Your task to perform on an android device: open a bookmark in the chrome app Image 0: 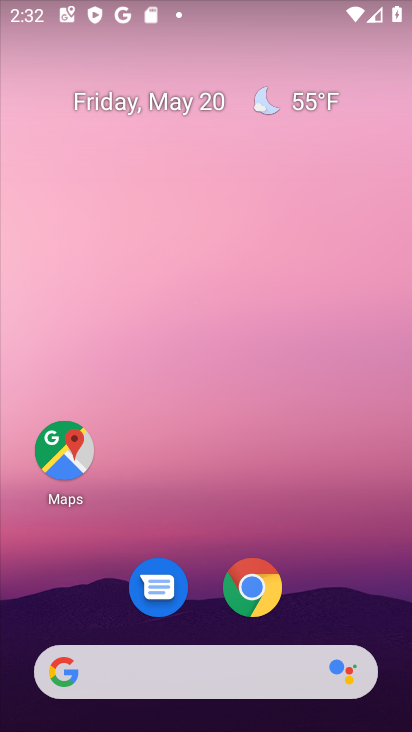
Step 0: press home button
Your task to perform on an android device: open a bookmark in the chrome app Image 1: 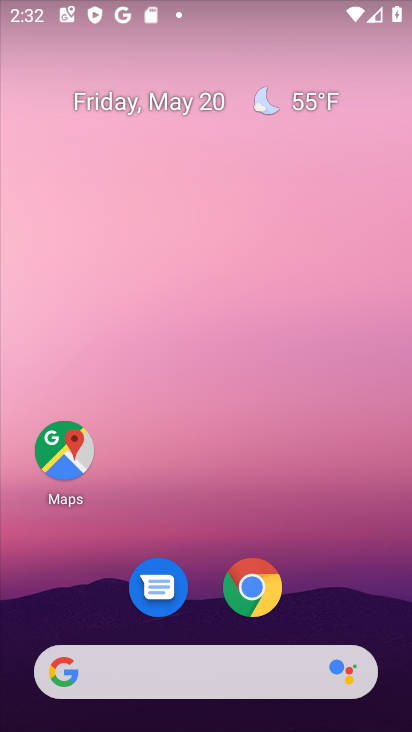
Step 1: click (246, 598)
Your task to perform on an android device: open a bookmark in the chrome app Image 2: 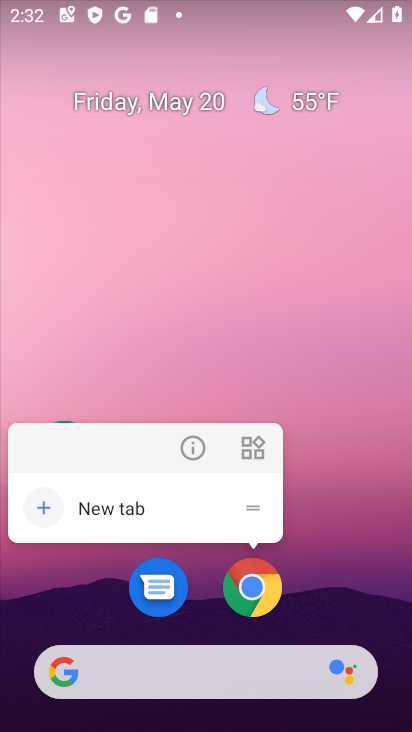
Step 2: click (248, 590)
Your task to perform on an android device: open a bookmark in the chrome app Image 3: 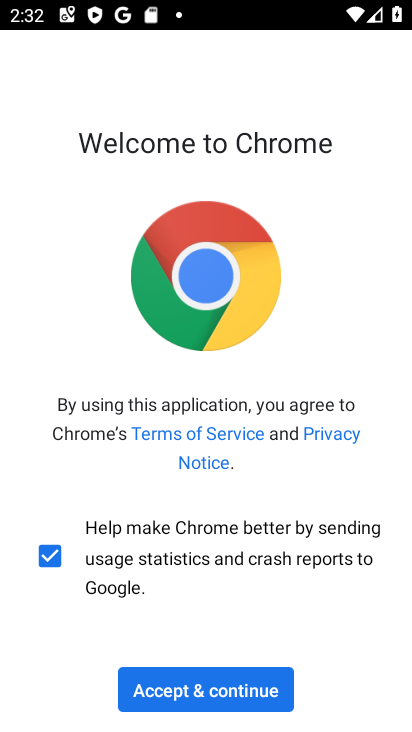
Step 3: click (223, 700)
Your task to perform on an android device: open a bookmark in the chrome app Image 4: 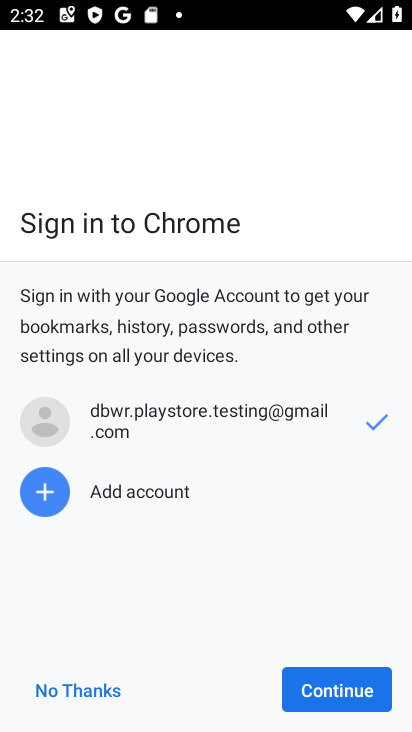
Step 4: click (300, 689)
Your task to perform on an android device: open a bookmark in the chrome app Image 5: 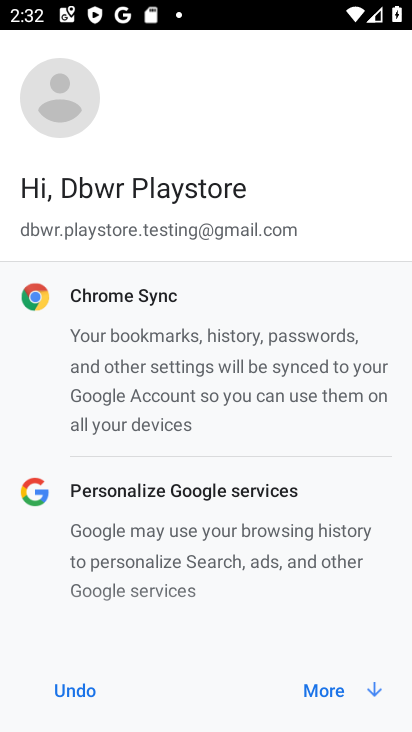
Step 5: click (309, 687)
Your task to perform on an android device: open a bookmark in the chrome app Image 6: 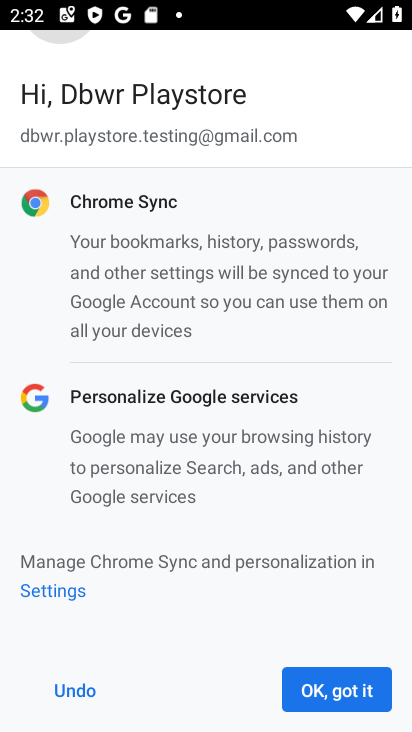
Step 6: click (309, 687)
Your task to perform on an android device: open a bookmark in the chrome app Image 7: 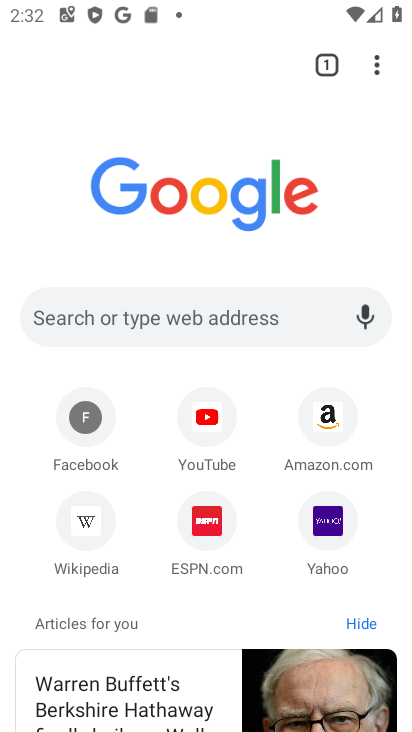
Step 7: click (373, 68)
Your task to perform on an android device: open a bookmark in the chrome app Image 8: 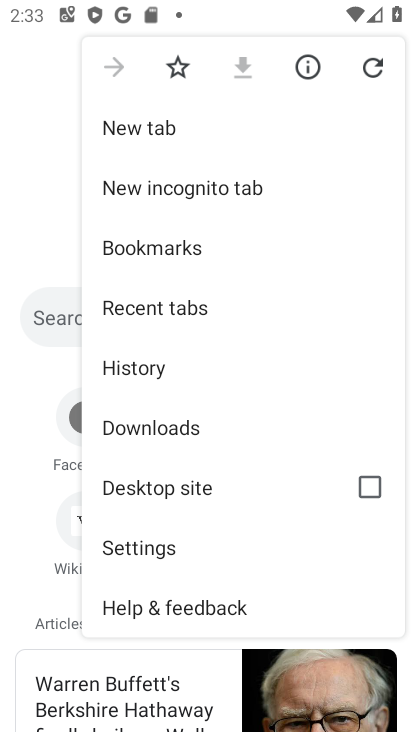
Step 8: click (240, 241)
Your task to perform on an android device: open a bookmark in the chrome app Image 9: 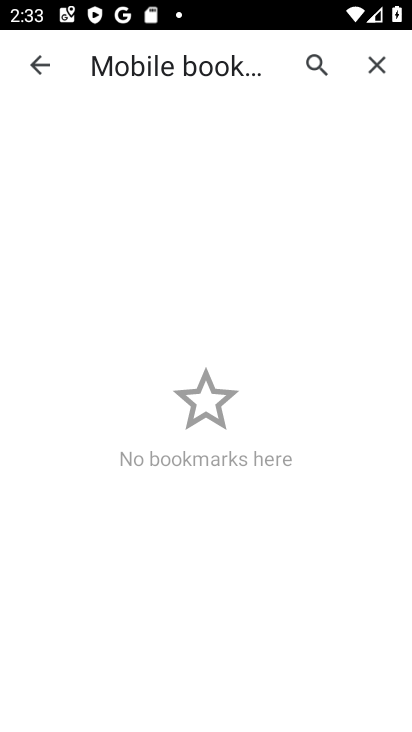
Step 9: task complete